Your task to perform on an android device: Check the news Image 0: 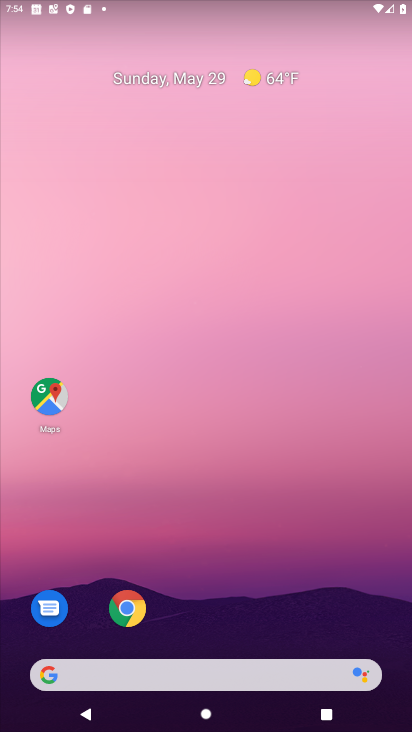
Step 0: drag from (18, 276) to (397, 430)
Your task to perform on an android device: Check the news Image 1: 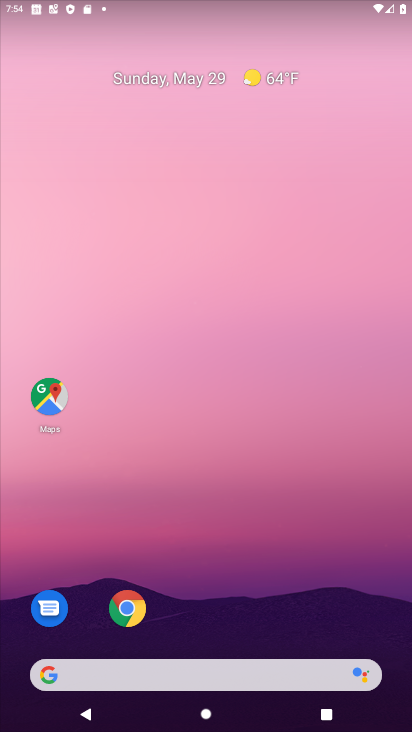
Step 1: click (231, 680)
Your task to perform on an android device: Check the news Image 2: 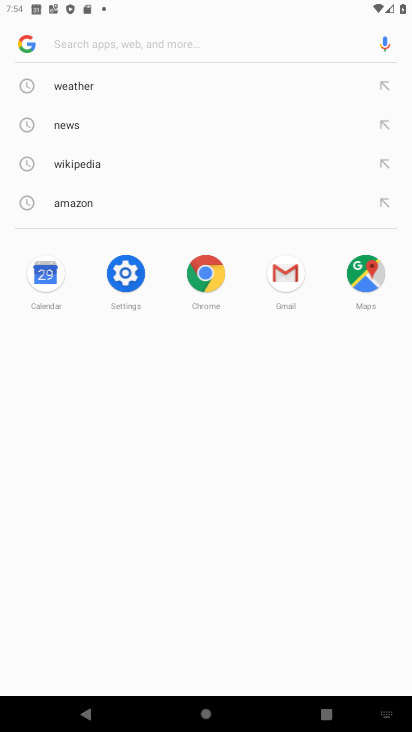
Step 2: click (78, 118)
Your task to perform on an android device: Check the news Image 3: 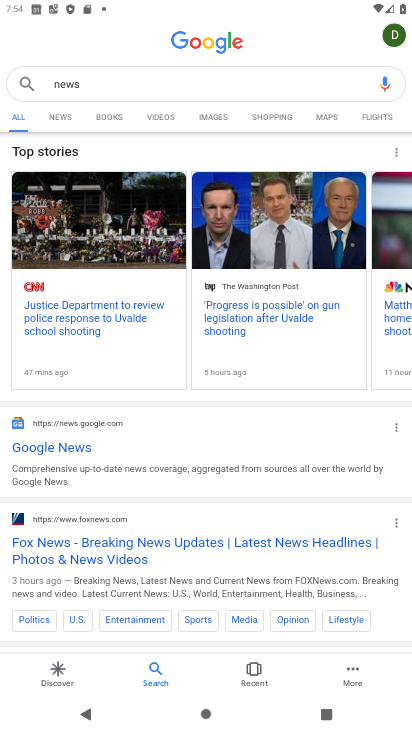
Step 3: task complete